Your task to perform on an android device: check android version Image 0: 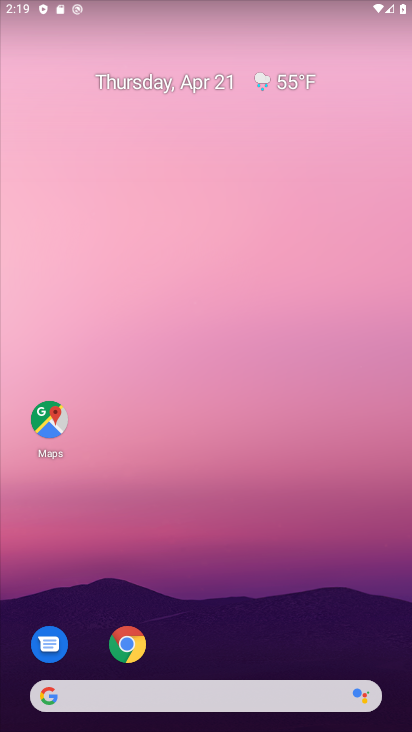
Step 0: drag from (314, 534) to (254, 145)
Your task to perform on an android device: check android version Image 1: 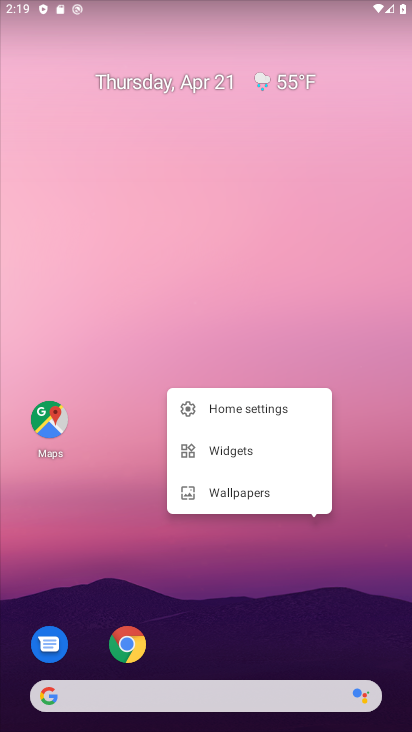
Step 1: drag from (329, 661) to (265, 165)
Your task to perform on an android device: check android version Image 2: 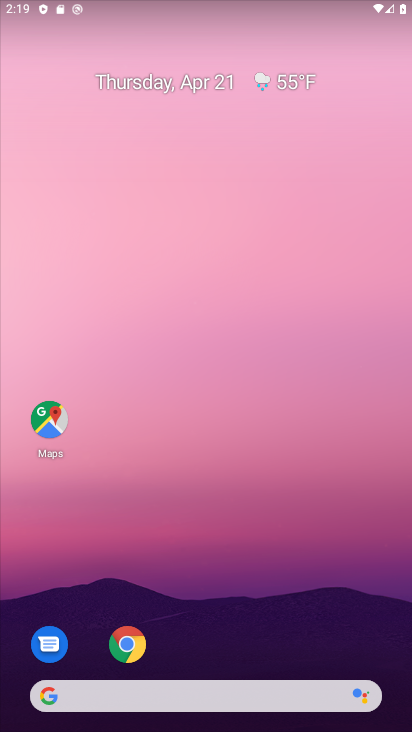
Step 2: drag from (309, 622) to (301, 126)
Your task to perform on an android device: check android version Image 3: 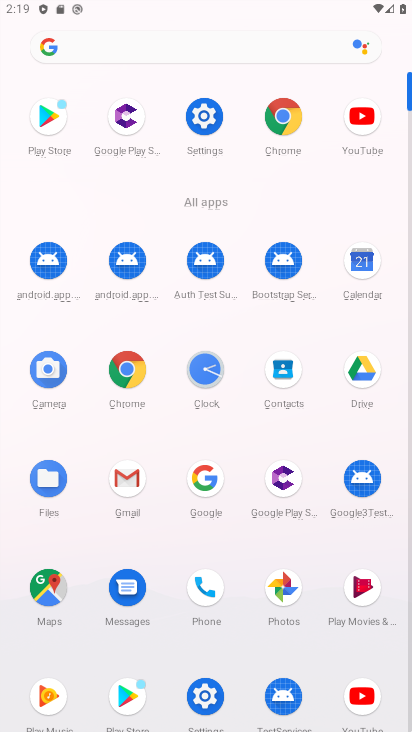
Step 3: drag from (229, 542) to (196, 209)
Your task to perform on an android device: check android version Image 4: 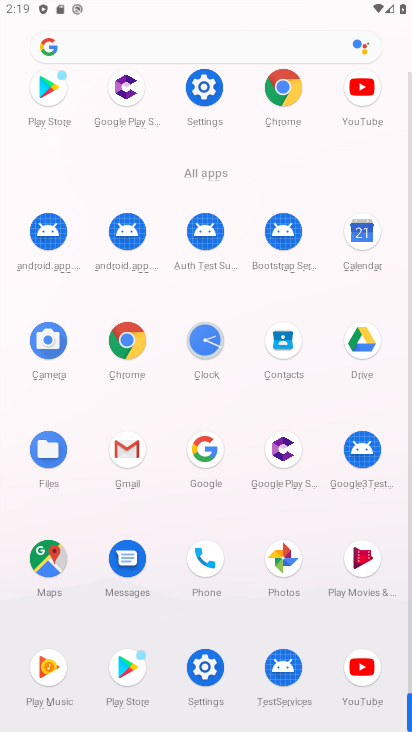
Step 4: click (198, 684)
Your task to perform on an android device: check android version Image 5: 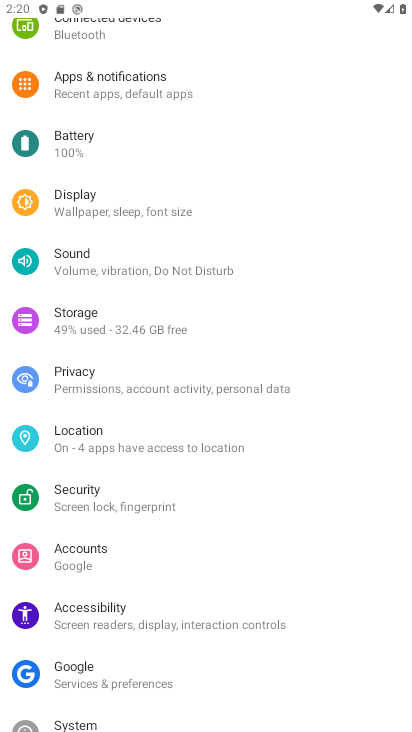
Step 5: drag from (168, 615) to (113, 250)
Your task to perform on an android device: check android version Image 6: 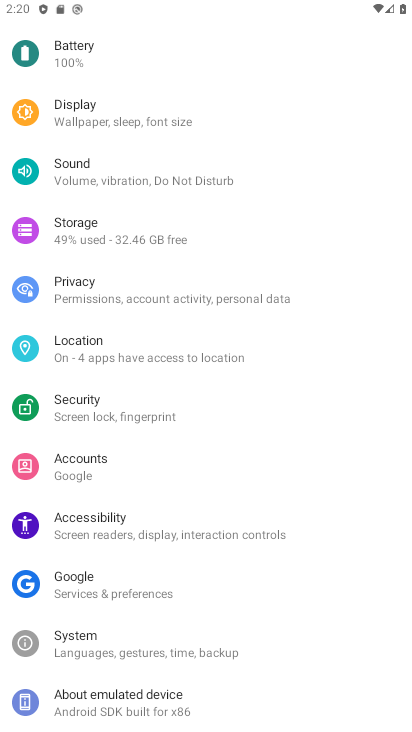
Step 6: click (154, 709)
Your task to perform on an android device: check android version Image 7: 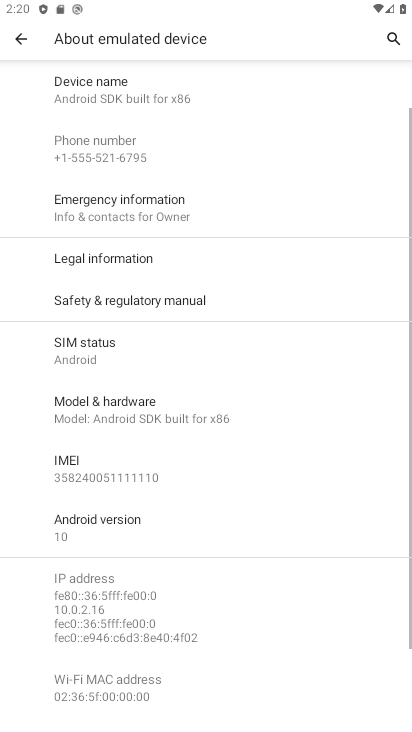
Step 7: click (129, 528)
Your task to perform on an android device: check android version Image 8: 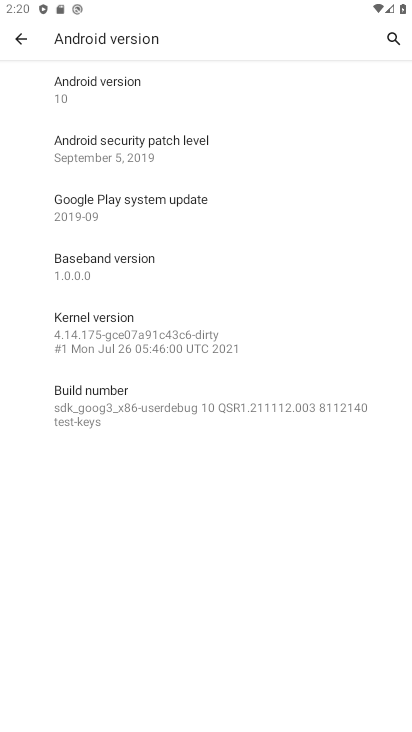
Step 8: task complete